Your task to perform on an android device: change notification settings in the gmail app Image 0: 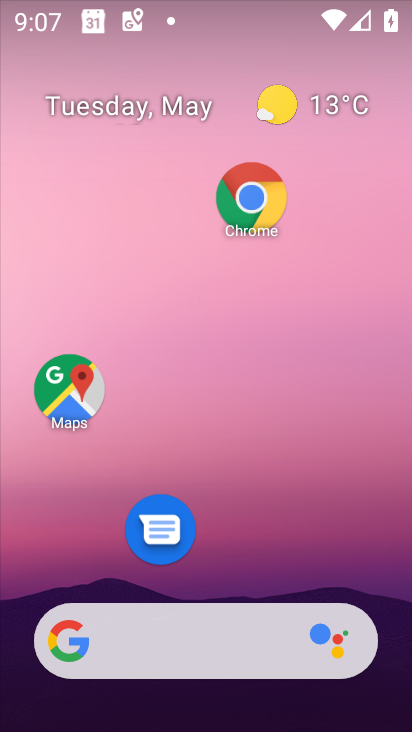
Step 0: drag from (345, 552) to (362, 221)
Your task to perform on an android device: change notification settings in the gmail app Image 1: 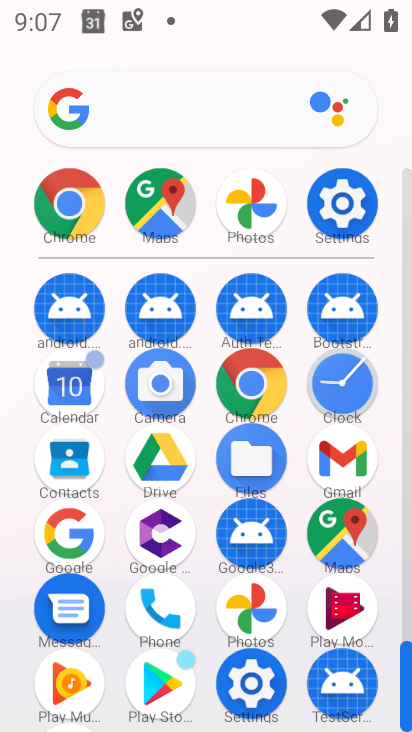
Step 1: click (335, 470)
Your task to perform on an android device: change notification settings in the gmail app Image 2: 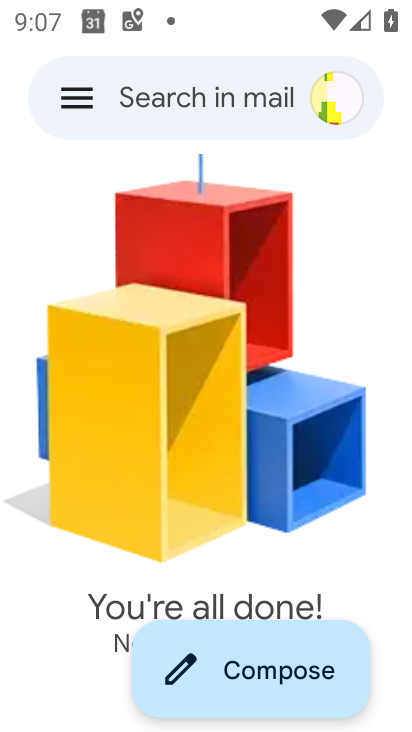
Step 2: click (67, 117)
Your task to perform on an android device: change notification settings in the gmail app Image 3: 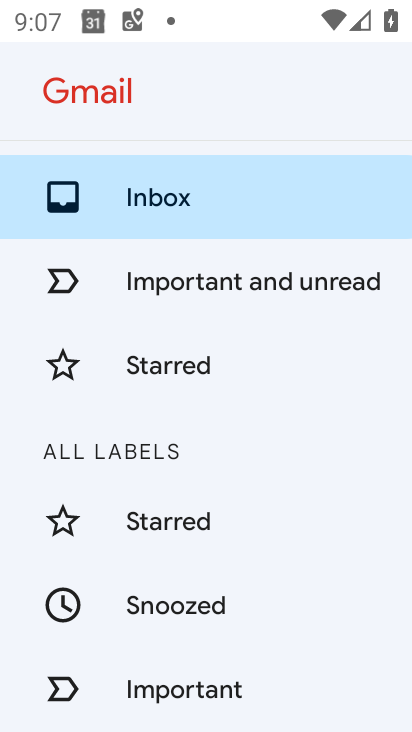
Step 3: drag from (185, 636) to (215, 347)
Your task to perform on an android device: change notification settings in the gmail app Image 4: 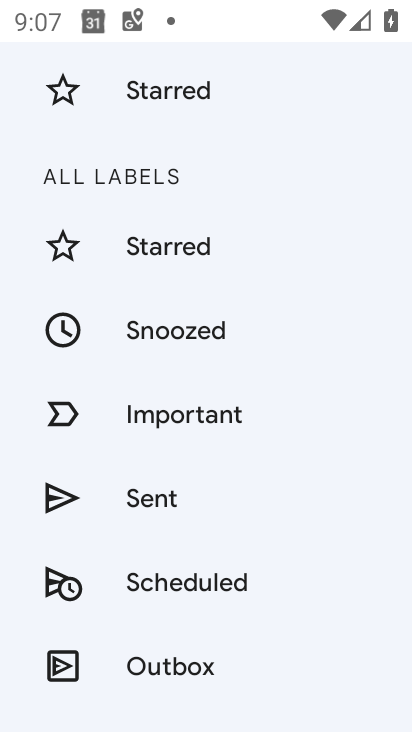
Step 4: drag from (185, 541) to (268, 186)
Your task to perform on an android device: change notification settings in the gmail app Image 5: 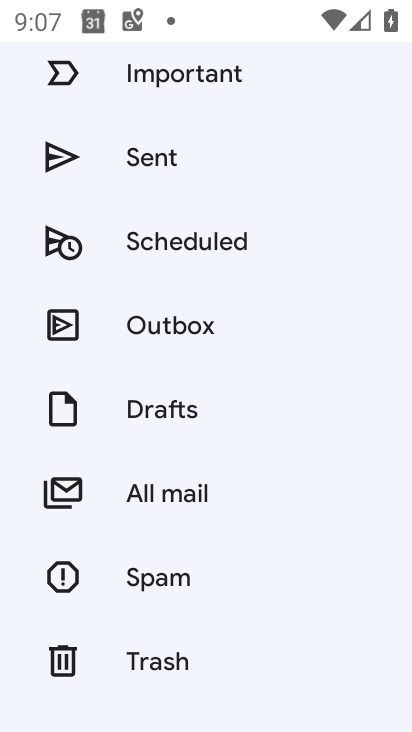
Step 5: drag from (258, 652) to (293, 294)
Your task to perform on an android device: change notification settings in the gmail app Image 6: 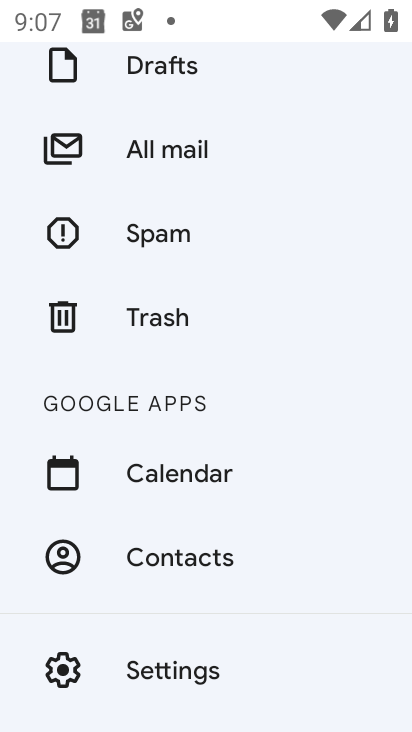
Step 6: click (222, 658)
Your task to perform on an android device: change notification settings in the gmail app Image 7: 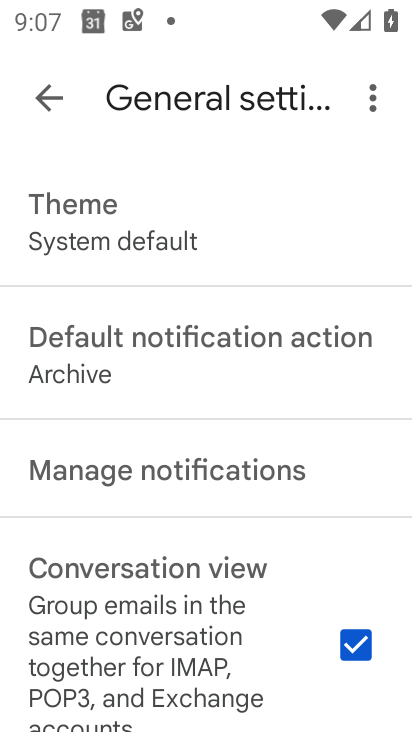
Step 7: click (202, 458)
Your task to perform on an android device: change notification settings in the gmail app Image 8: 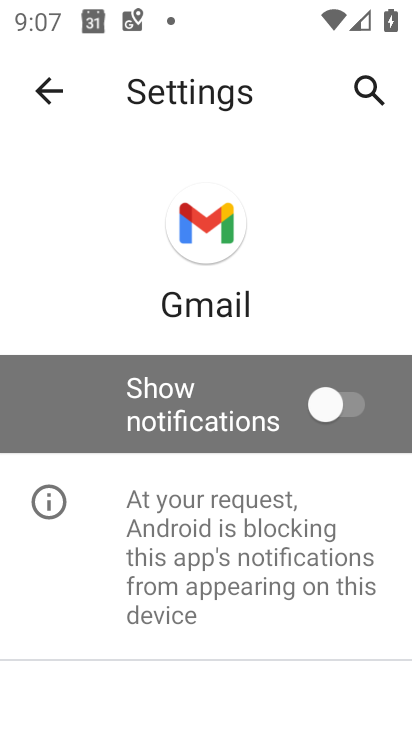
Step 8: click (309, 412)
Your task to perform on an android device: change notification settings in the gmail app Image 9: 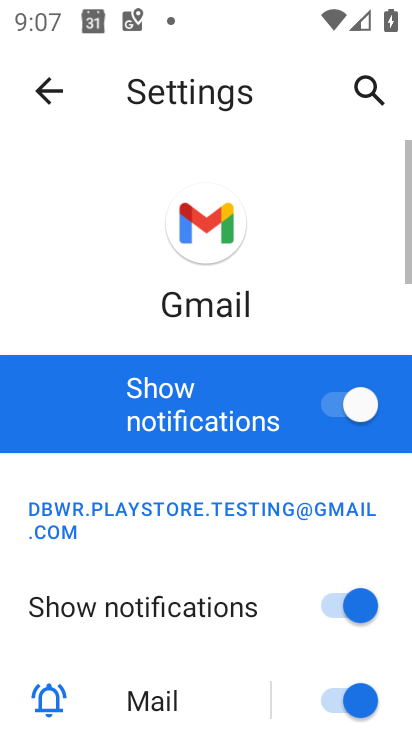
Step 9: task complete